Your task to perform on an android device: set default search engine in the chrome app Image 0: 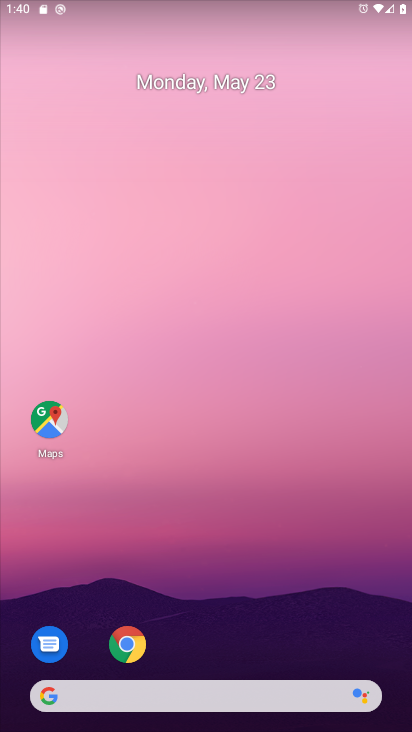
Step 0: click (130, 647)
Your task to perform on an android device: set default search engine in the chrome app Image 1: 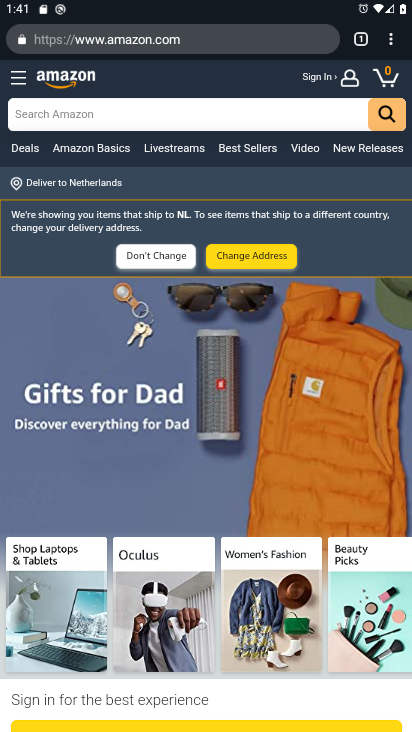
Step 1: click (394, 41)
Your task to perform on an android device: set default search engine in the chrome app Image 2: 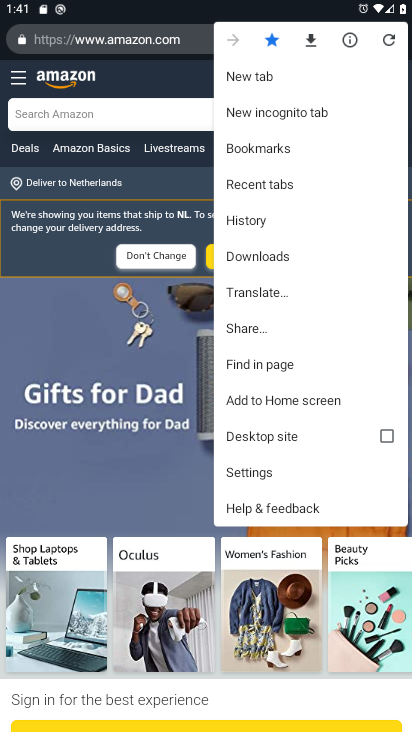
Step 2: click (254, 475)
Your task to perform on an android device: set default search engine in the chrome app Image 3: 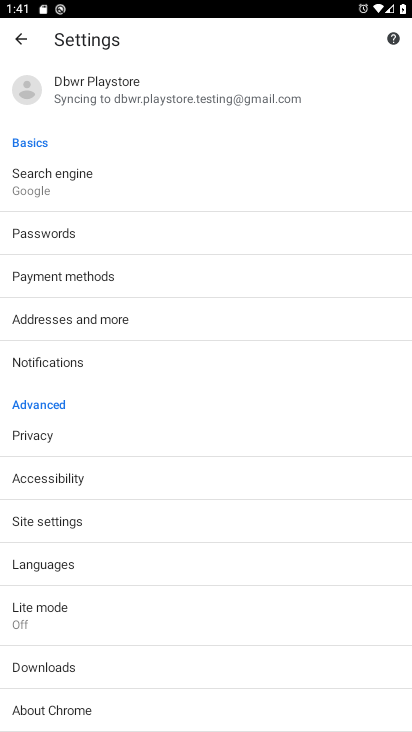
Step 3: click (34, 188)
Your task to perform on an android device: set default search engine in the chrome app Image 4: 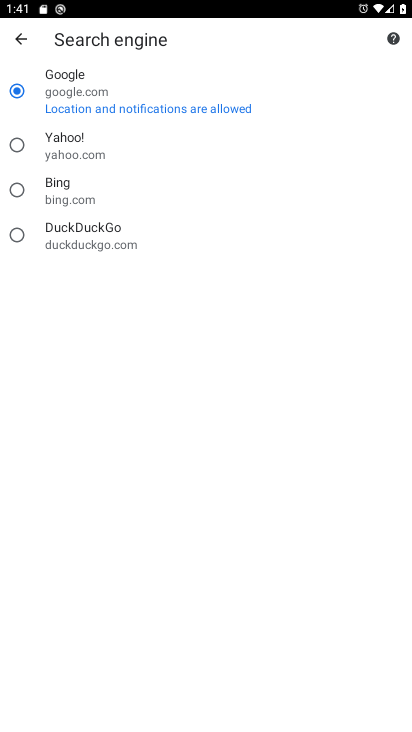
Step 4: click (22, 133)
Your task to perform on an android device: set default search engine in the chrome app Image 5: 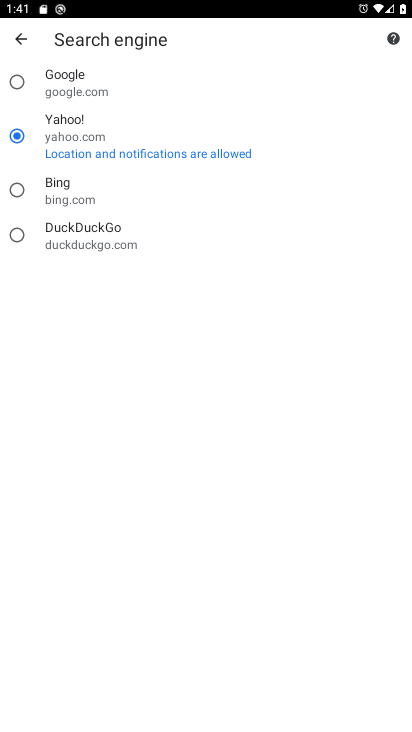
Step 5: task complete